Your task to perform on an android device: turn notification dots off Image 0: 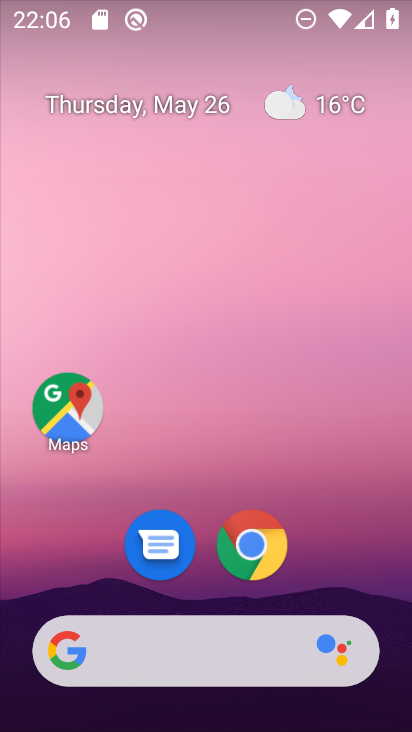
Step 0: drag from (347, 560) to (369, 84)
Your task to perform on an android device: turn notification dots off Image 1: 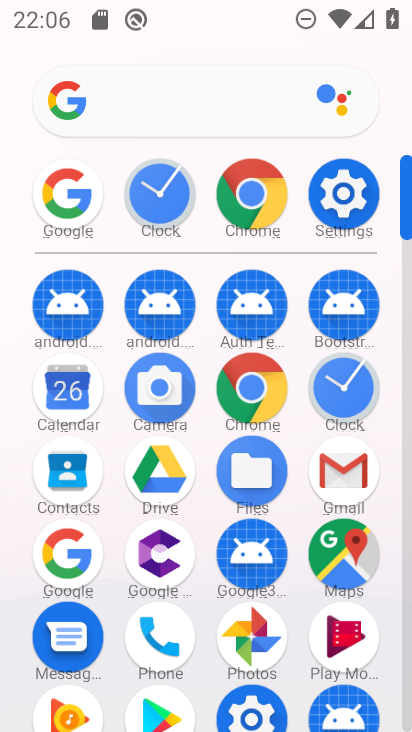
Step 1: click (343, 196)
Your task to perform on an android device: turn notification dots off Image 2: 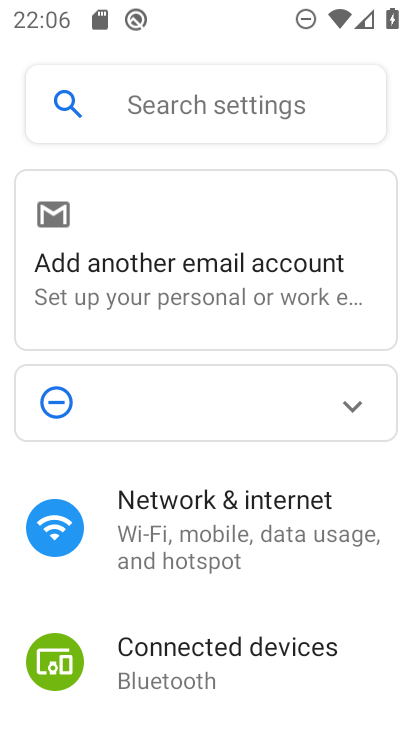
Step 2: drag from (207, 640) to (219, 291)
Your task to perform on an android device: turn notification dots off Image 3: 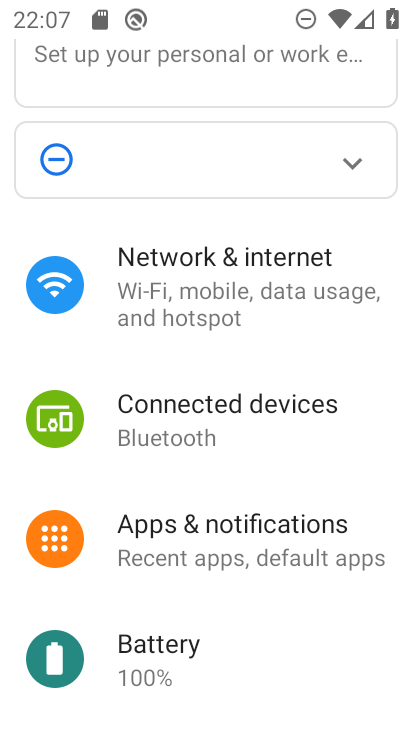
Step 3: click (219, 531)
Your task to perform on an android device: turn notification dots off Image 4: 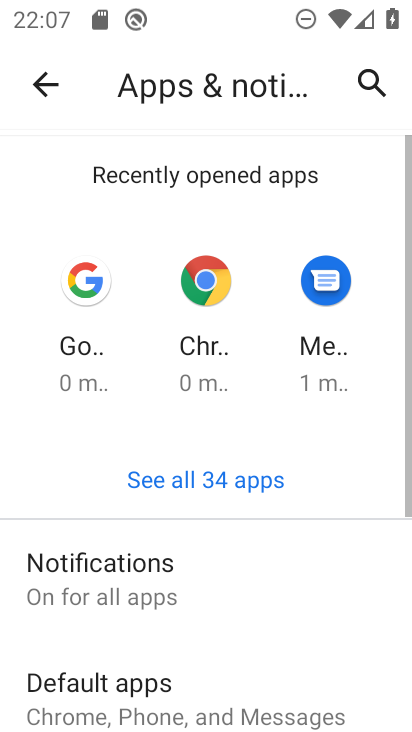
Step 4: click (142, 591)
Your task to perform on an android device: turn notification dots off Image 5: 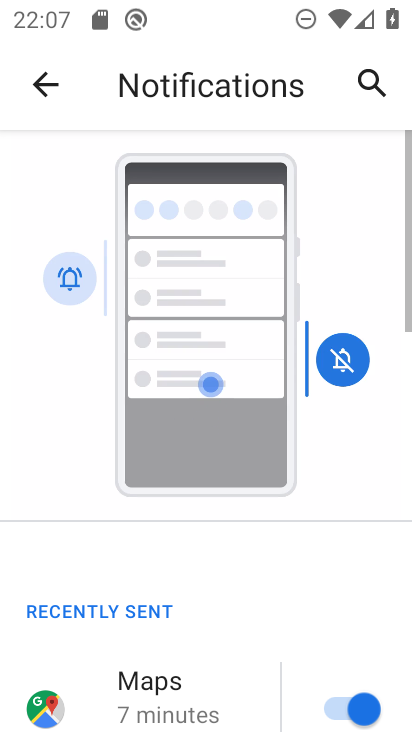
Step 5: drag from (246, 667) to (265, 28)
Your task to perform on an android device: turn notification dots off Image 6: 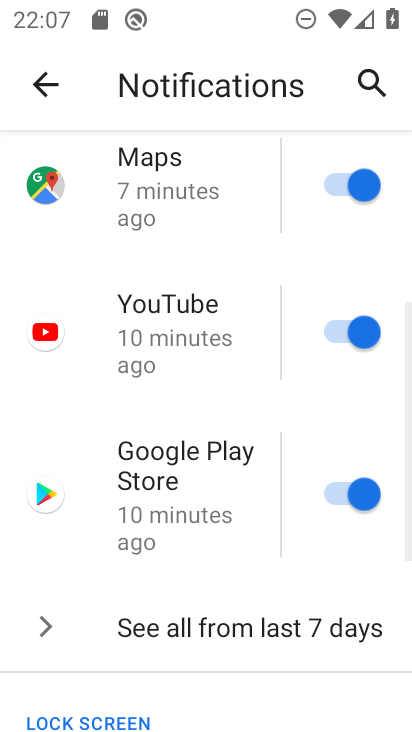
Step 6: drag from (249, 678) to (266, 232)
Your task to perform on an android device: turn notification dots off Image 7: 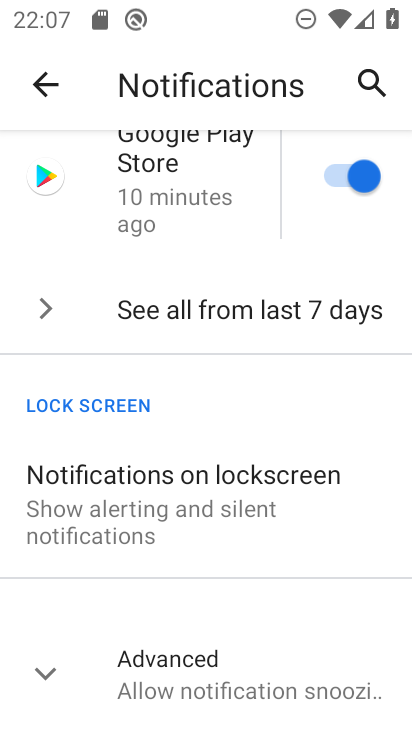
Step 7: click (180, 679)
Your task to perform on an android device: turn notification dots off Image 8: 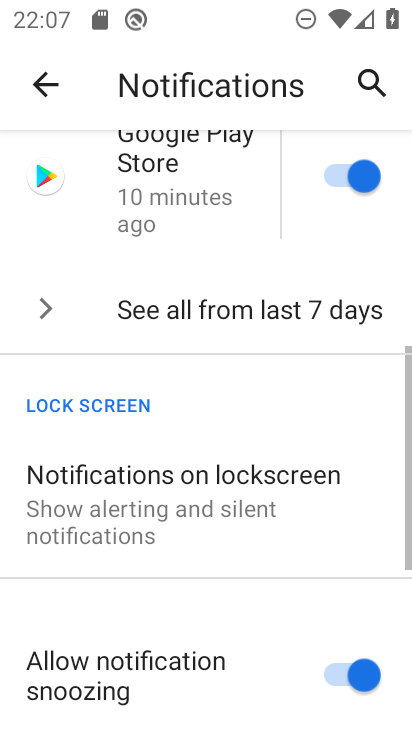
Step 8: drag from (303, 624) to (285, 303)
Your task to perform on an android device: turn notification dots off Image 9: 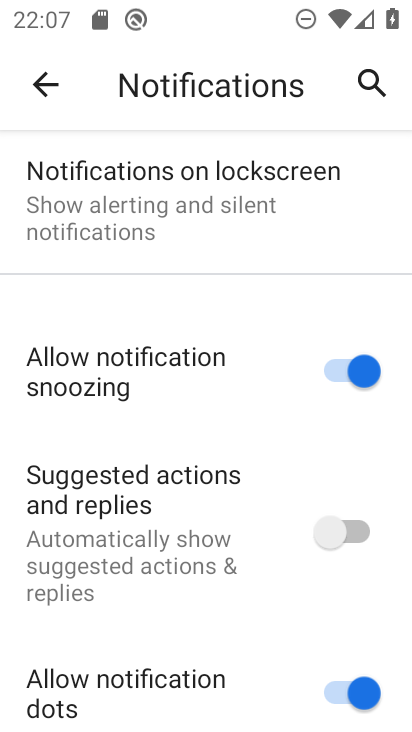
Step 9: click (354, 698)
Your task to perform on an android device: turn notification dots off Image 10: 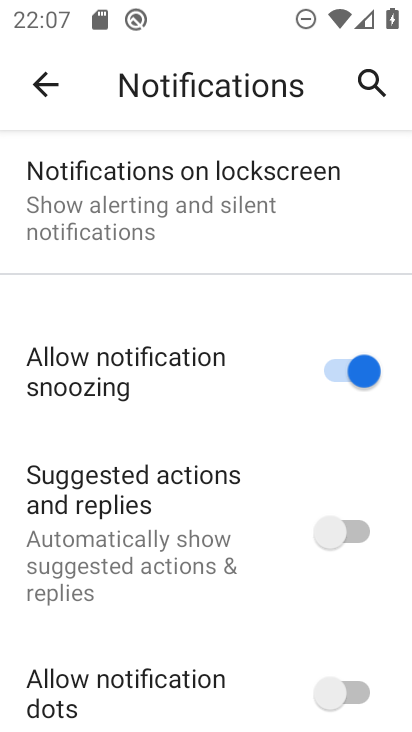
Step 10: task complete